Your task to perform on an android device: When is my next appointment? Image 0: 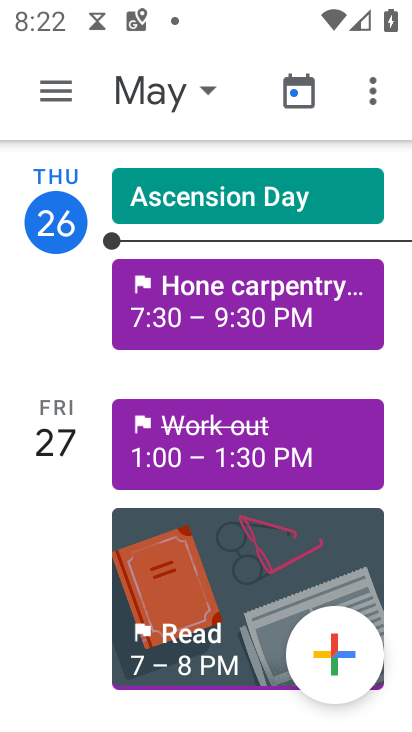
Step 0: press home button
Your task to perform on an android device: When is my next appointment? Image 1: 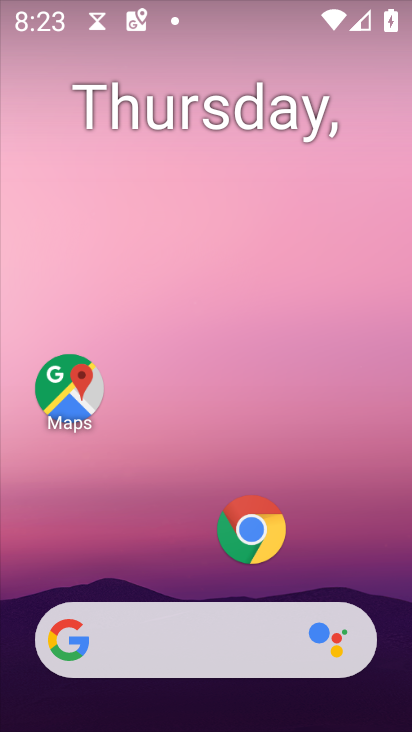
Step 1: drag from (192, 567) to (211, 53)
Your task to perform on an android device: When is my next appointment? Image 2: 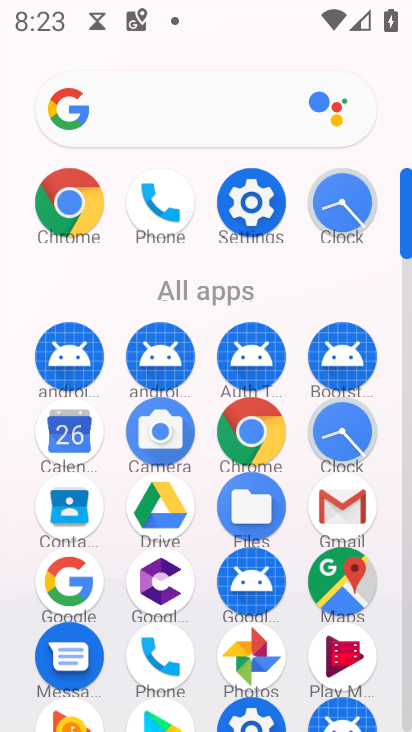
Step 2: click (64, 431)
Your task to perform on an android device: When is my next appointment? Image 3: 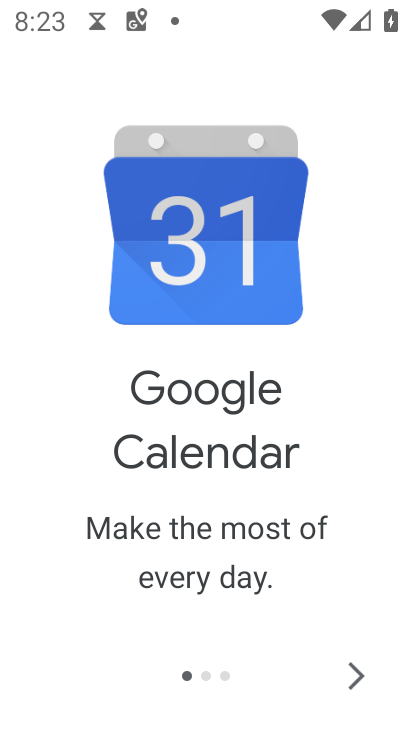
Step 3: click (356, 670)
Your task to perform on an android device: When is my next appointment? Image 4: 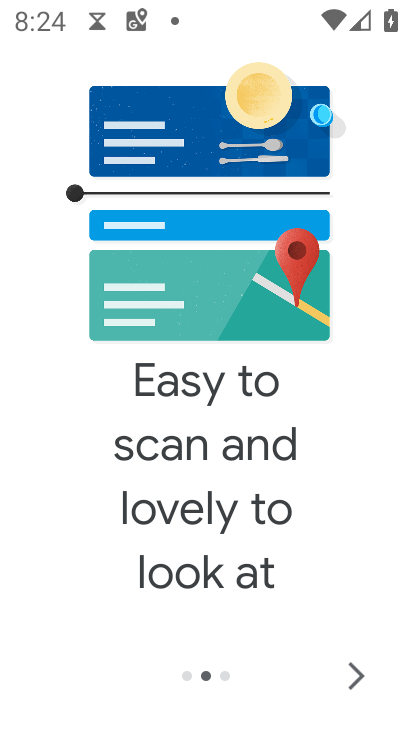
Step 4: click (357, 667)
Your task to perform on an android device: When is my next appointment? Image 5: 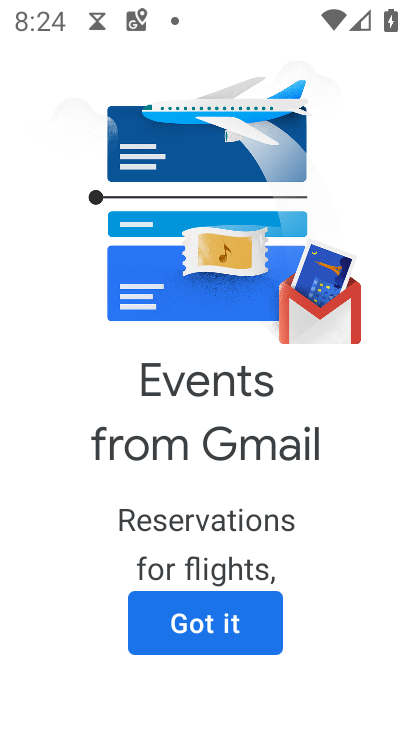
Step 5: click (194, 626)
Your task to perform on an android device: When is my next appointment? Image 6: 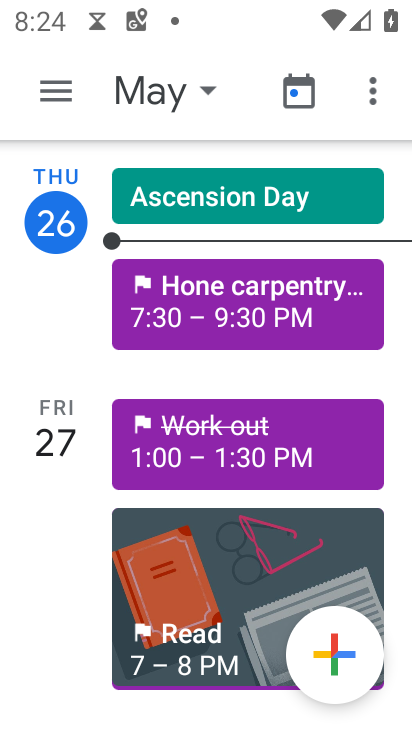
Step 6: task complete